Your task to perform on an android device: Go to sound settings Image 0: 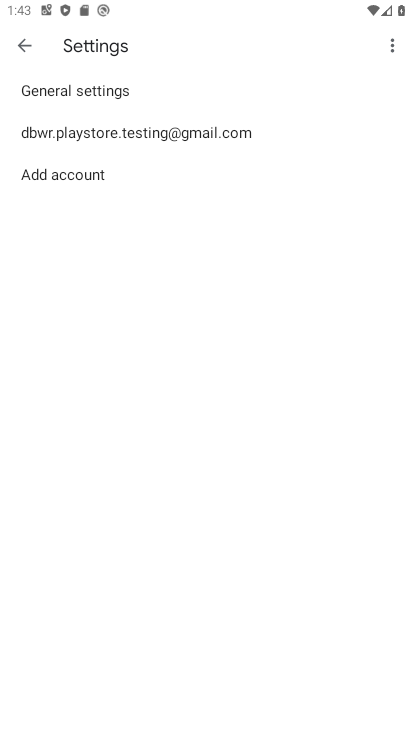
Step 0: press home button
Your task to perform on an android device: Go to sound settings Image 1: 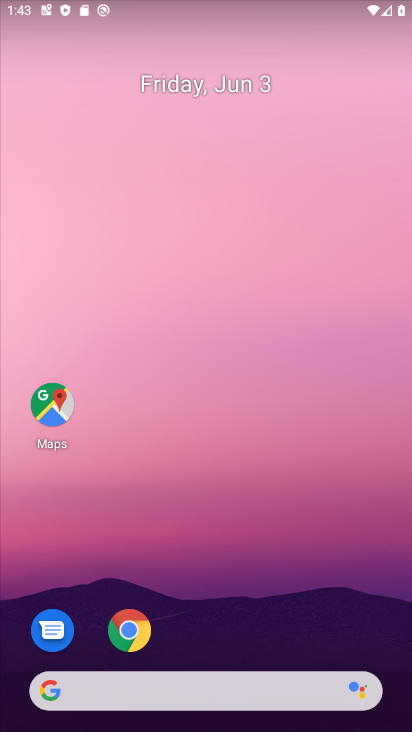
Step 1: drag from (236, 723) to (207, 105)
Your task to perform on an android device: Go to sound settings Image 2: 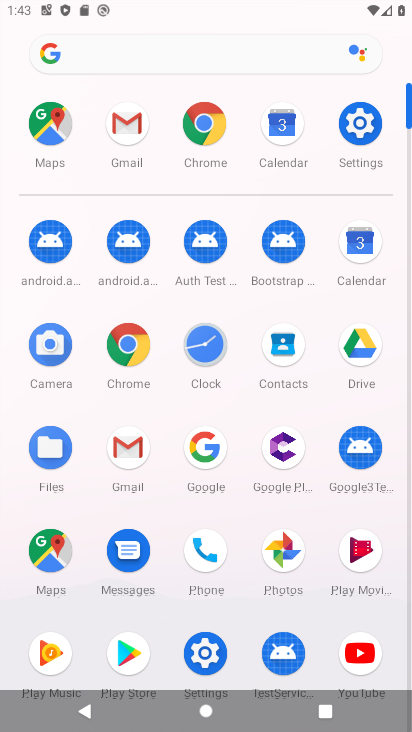
Step 2: click (354, 122)
Your task to perform on an android device: Go to sound settings Image 3: 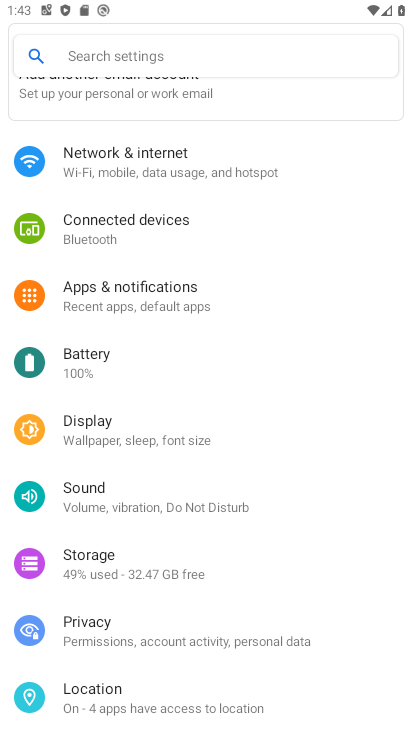
Step 3: click (102, 502)
Your task to perform on an android device: Go to sound settings Image 4: 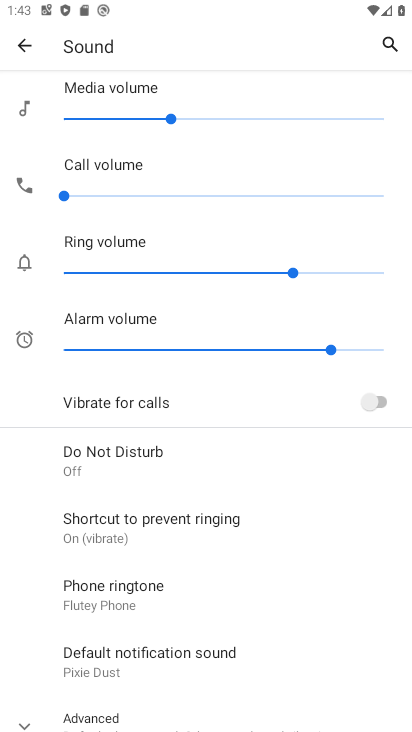
Step 4: task complete